Your task to perform on an android device: See recent photos Image 0: 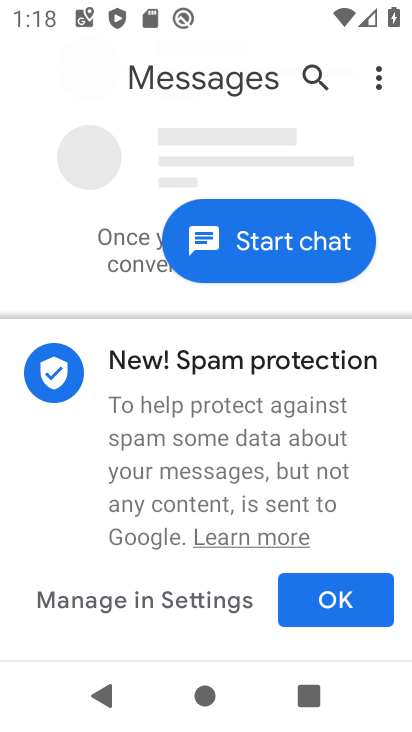
Step 0: press home button
Your task to perform on an android device: See recent photos Image 1: 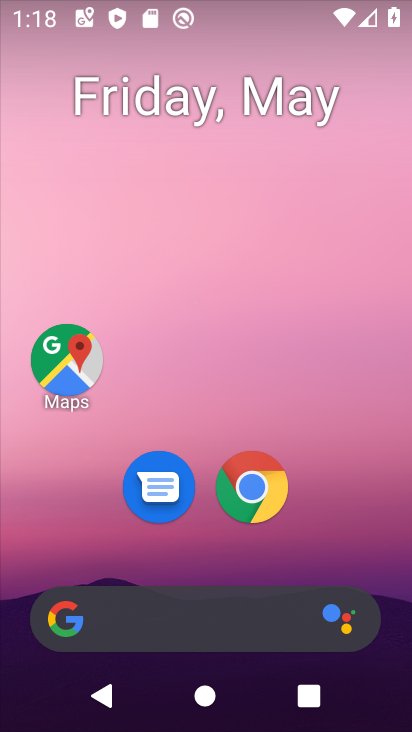
Step 1: drag from (225, 489) to (246, 28)
Your task to perform on an android device: See recent photos Image 2: 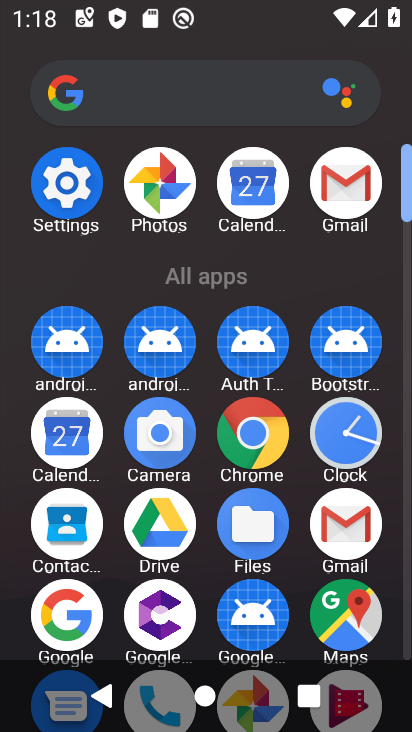
Step 2: click (135, 188)
Your task to perform on an android device: See recent photos Image 3: 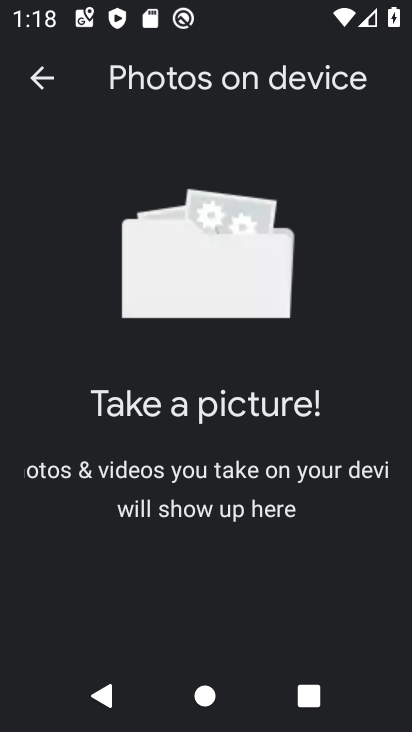
Step 3: click (40, 89)
Your task to perform on an android device: See recent photos Image 4: 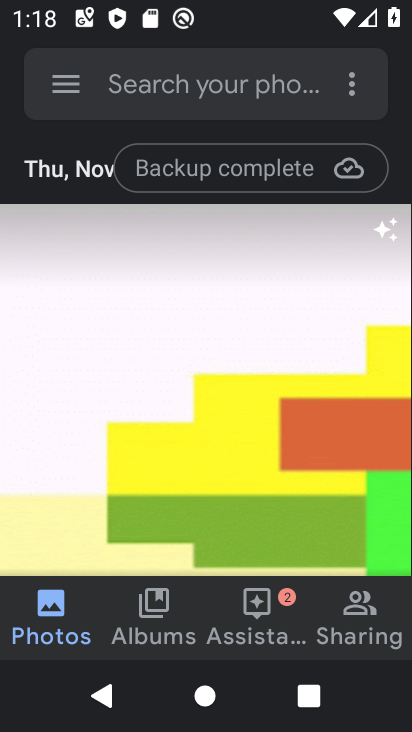
Step 4: task complete